Your task to perform on an android device: see tabs open on other devices in the chrome app Image 0: 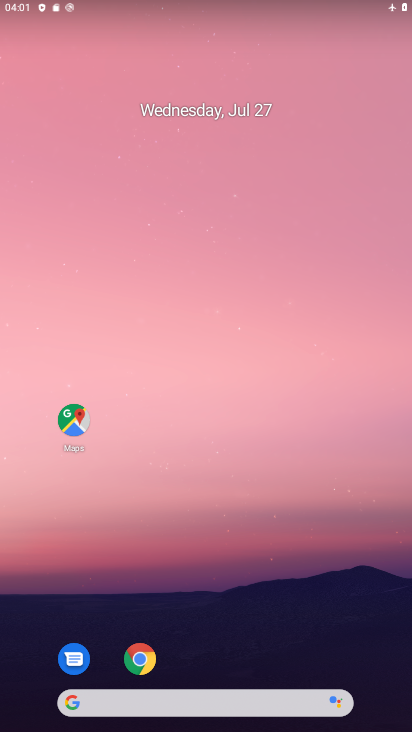
Step 0: click (145, 663)
Your task to perform on an android device: see tabs open on other devices in the chrome app Image 1: 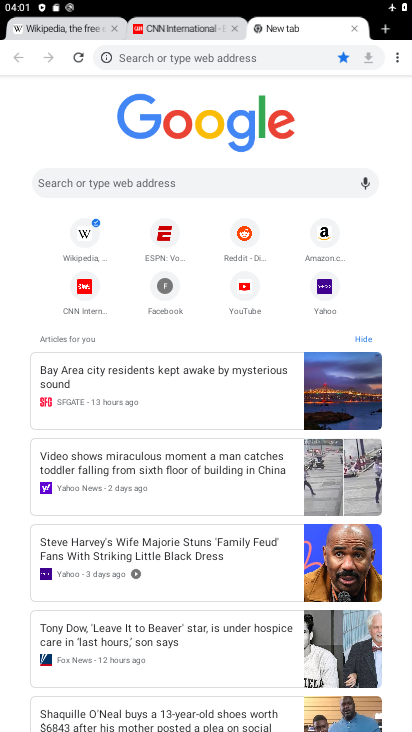
Step 1: task complete